Your task to perform on an android device: find photos in the google photos app Image 0: 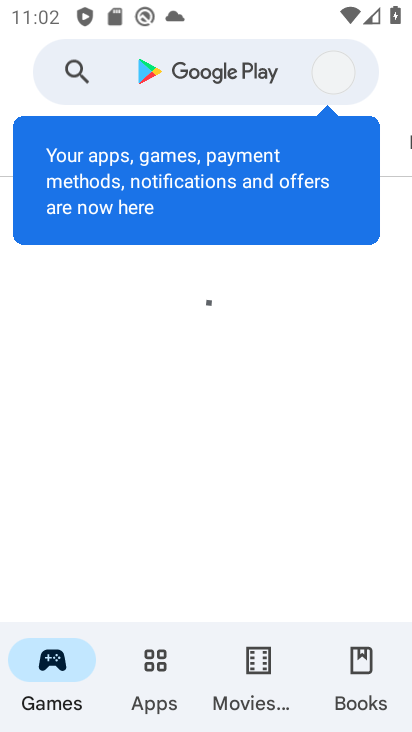
Step 0: press home button
Your task to perform on an android device: find photos in the google photos app Image 1: 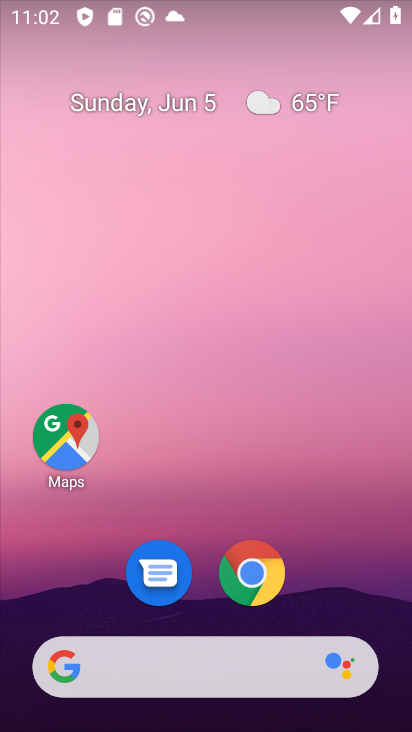
Step 1: drag from (215, 502) to (278, 159)
Your task to perform on an android device: find photos in the google photos app Image 2: 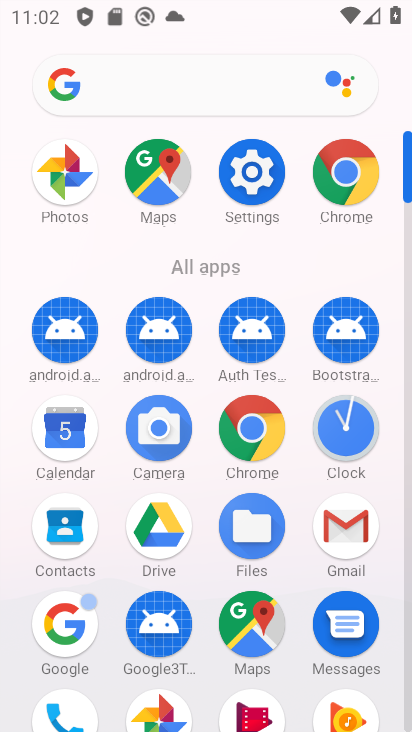
Step 2: drag from (218, 261) to (219, 50)
Your task to perform on an android device: find photos in the google photos app Image 3: 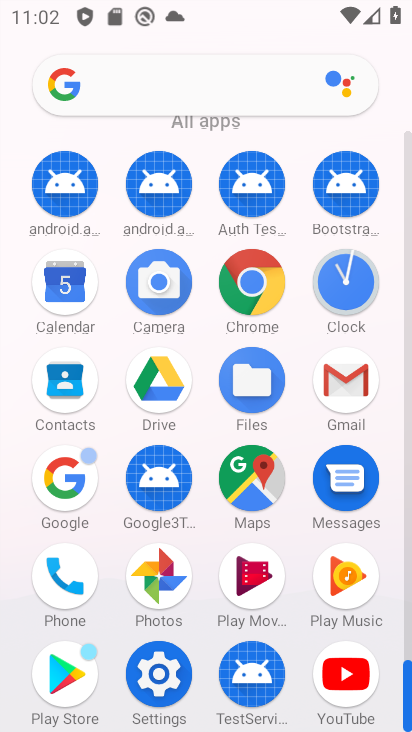
Step 3: click (158, 586)
Your task to perform on an android device: find photos in the google photos app Image 4: 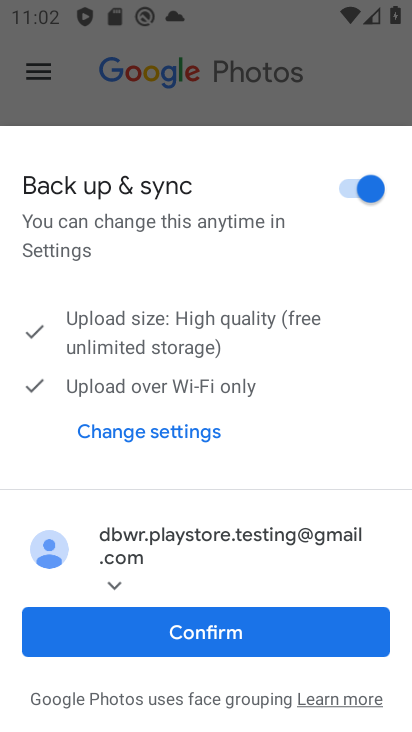
Step 4: click (232, 632)
Your task to perform on an android device: find photos in the google photos app Image 5: 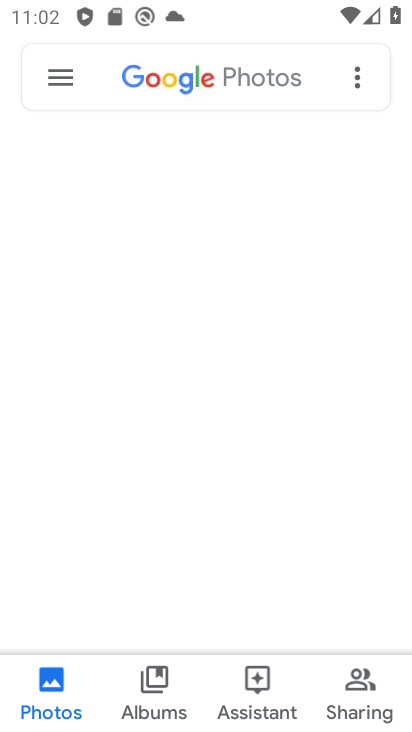
Step 5: click (41, 86)
Your task to perform on an android device: find photos in the google photos app Image 6: 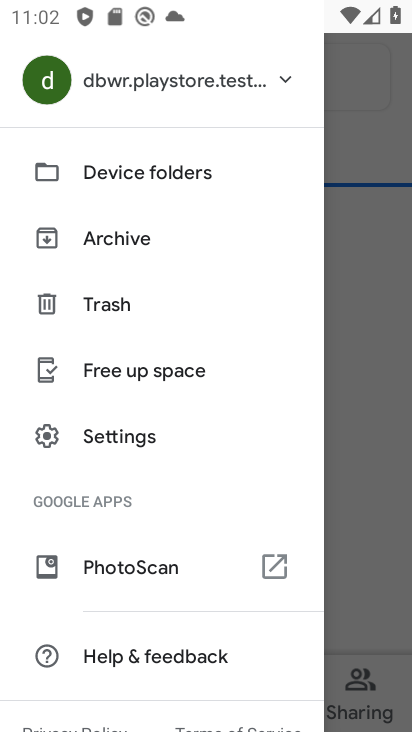
Step 6: click (380, 303)
Your task to perform on an android device: find photos in the google photos app Image 7: 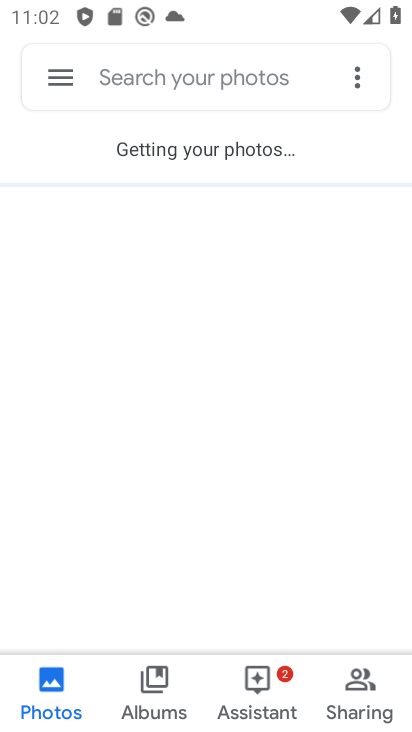
Step 7: click (148, 713)
Your task to perform on an android device: find photos in the google photos app Image 8: 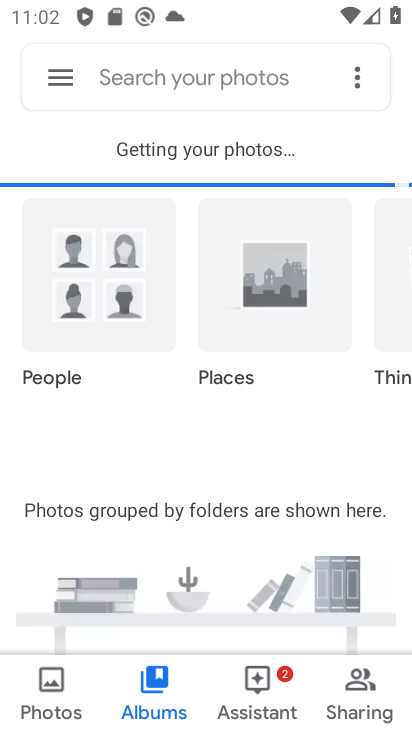
Step 8: click (67, 698)
Your task to perform on an android device: find photos in the google photos app Image 9: 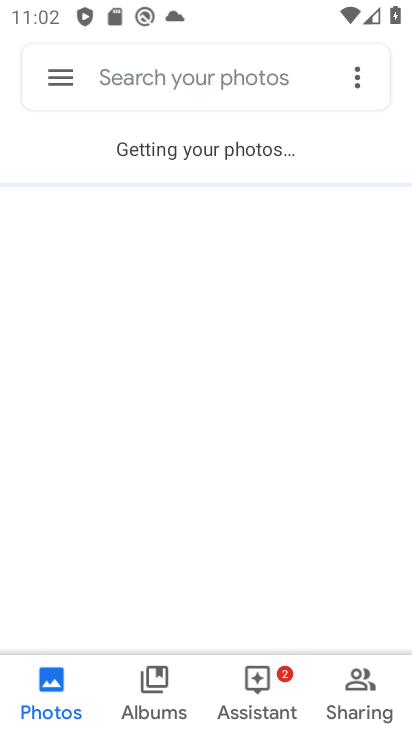
Step 9: click (145, 706)
Your task to perform on an android device: find photos in the google photos app Image 10: 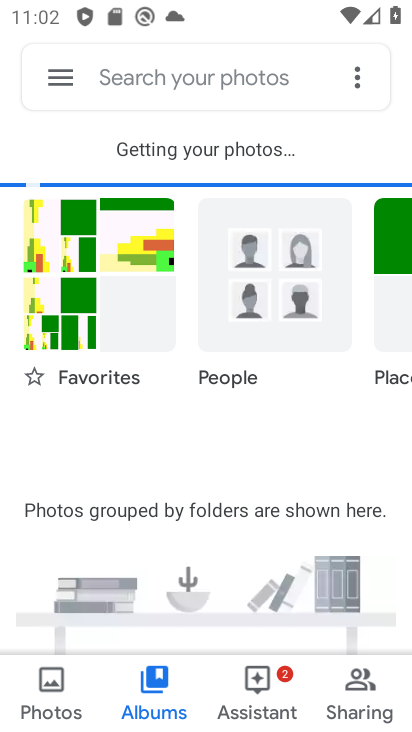
Step 10: drag from (239, 524) to (270, 594)
Your task to perform on an android device: find photos in the google photos app Image 11: 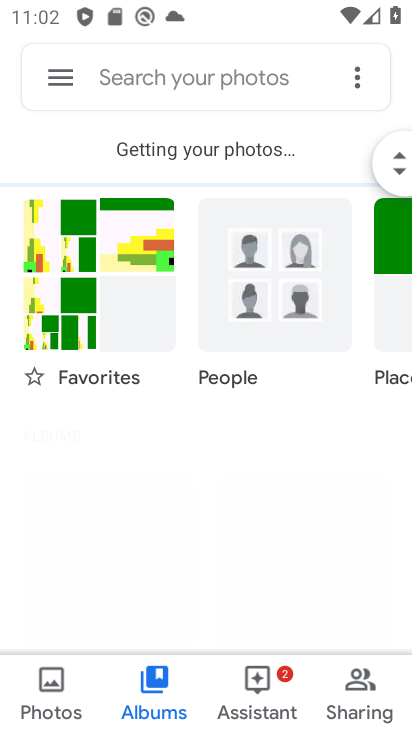
Step 11: click (69, 699)
Your task to perform on an android device: find photos in the google photos app Image 12: 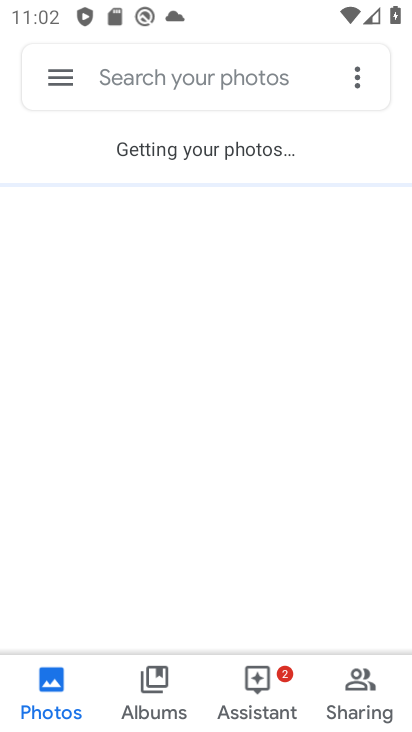
Step 12: task complete